Your task to perform on an android device: turn off wifi Image 0: 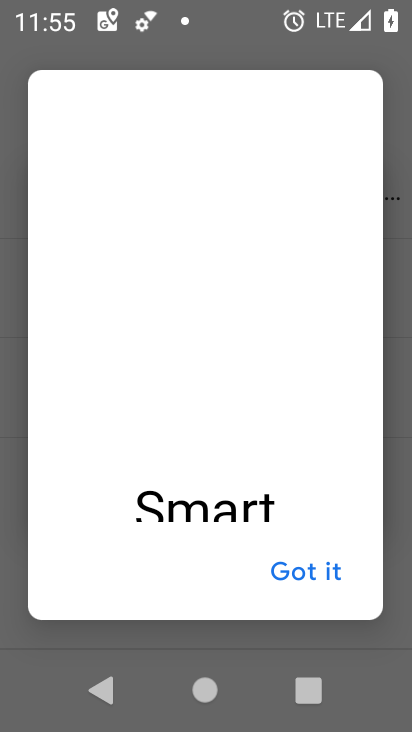
Step 0: click (265, 580)
Your task to perform on an android device: turn off wifi Image 1: 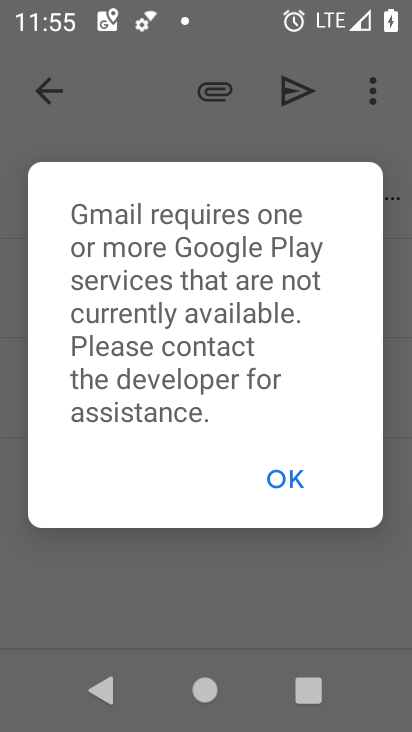
Step 1: task complete